Your task to perform on an android device: turn notification dots off Image 0: 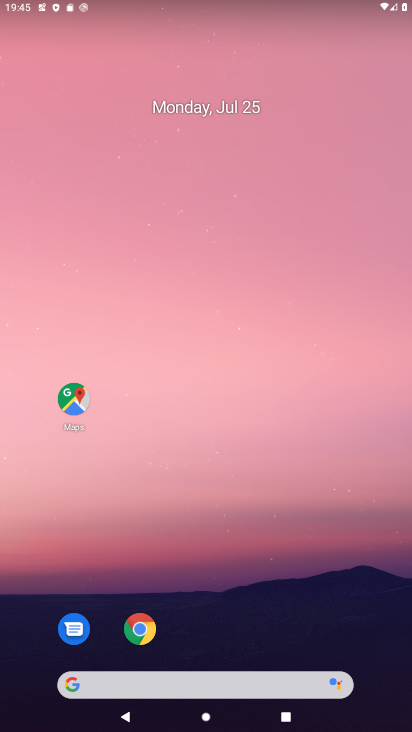
Step 0: drag from (57, 674) to (235, 161)
Your task to perform on an android device: turn notification dots off Image 1: 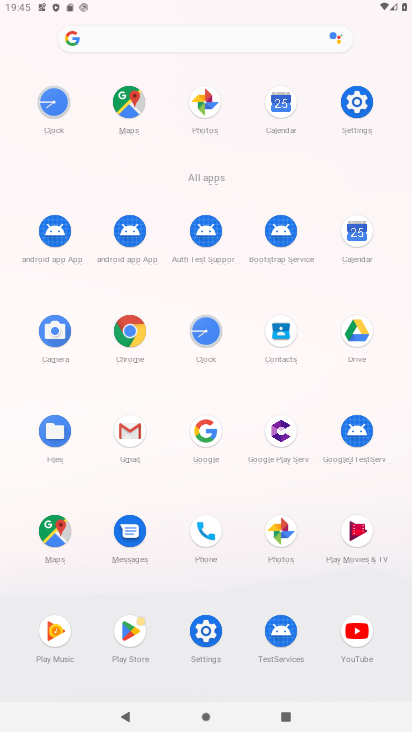
Step 1: click (212, 639)
Your task to perform on an android device: turn notification dots off Image 2: 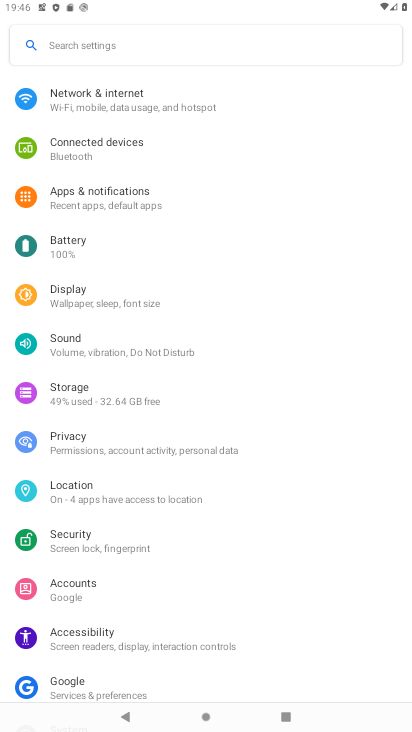
Step 2: click (119, 203)
Your task to perform on an android device: turn notification dots off Image 3: 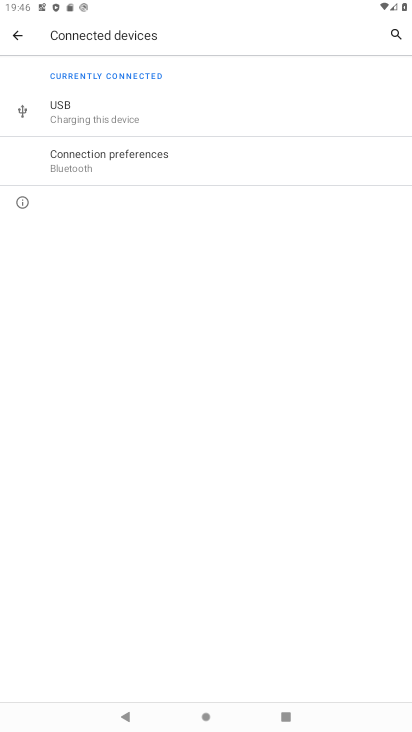
Step 3: click (18, 31)
Your task to perform on an android device: turn notification dots off Image 4: 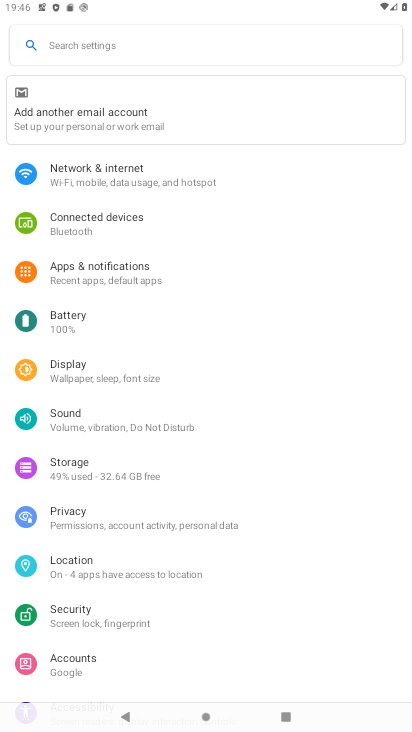
Step 4: click (117, 276)
Your task to perform on an android device: turn notification dots off Image 5: 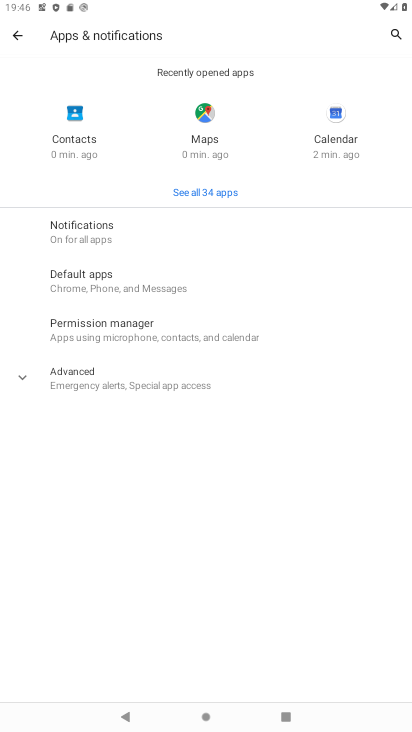
Step 5: click (63, 373)
Your task to perform on an android device: turn notification dots off Image 6: 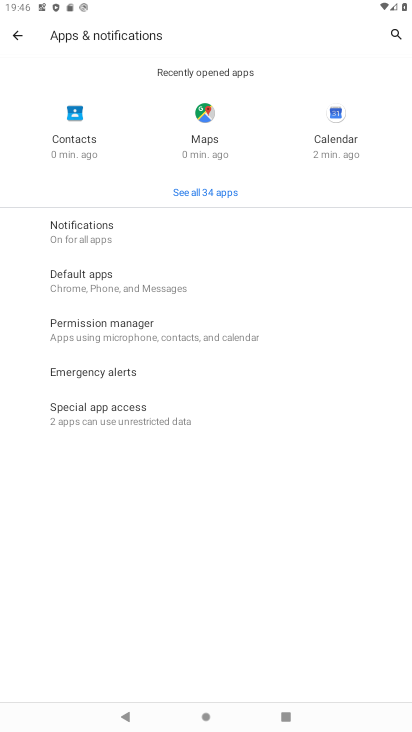
Step 6: click (120, 228)
Your task to perform on an android device: turn notification dots off Image 7: 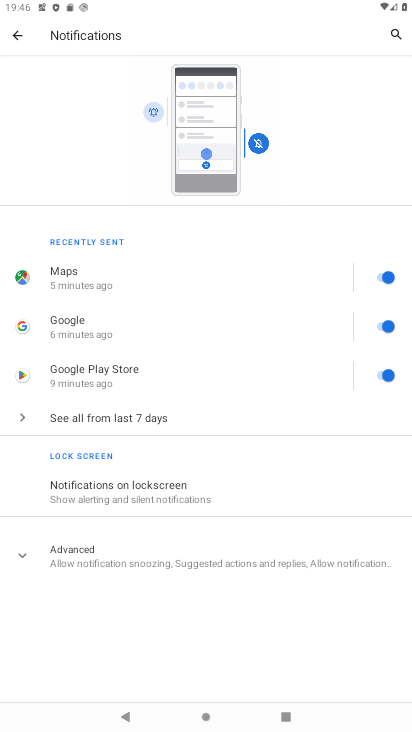
Step 7: click (116, 557)
Your task to perform on an android device: turn notification dots off Image 8: 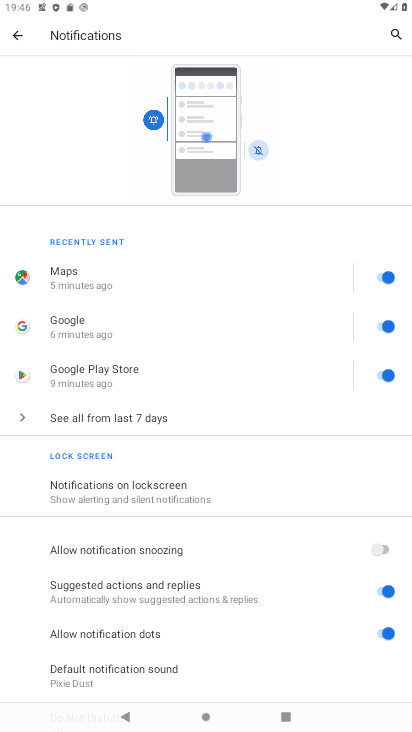
Step 8: drag from (240, 677) to (258, 360)
Your task to perform on an android device: turn notification dots off Image 9: 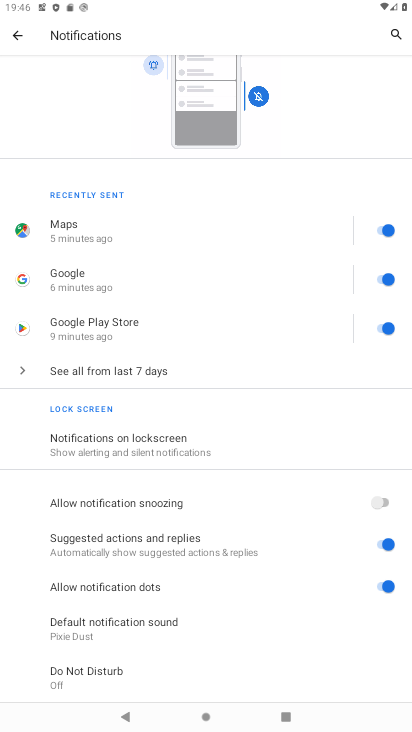
Step 9: click (381, 586)
Your task to perform on an android device: turn notification dots off Image 10: 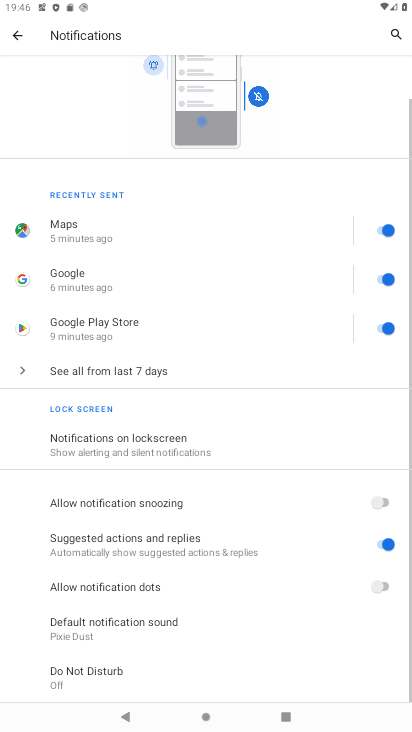
Step 10: task complete